Your task to perform on an android device: Search for Italian restaurants on Maps Image 0: 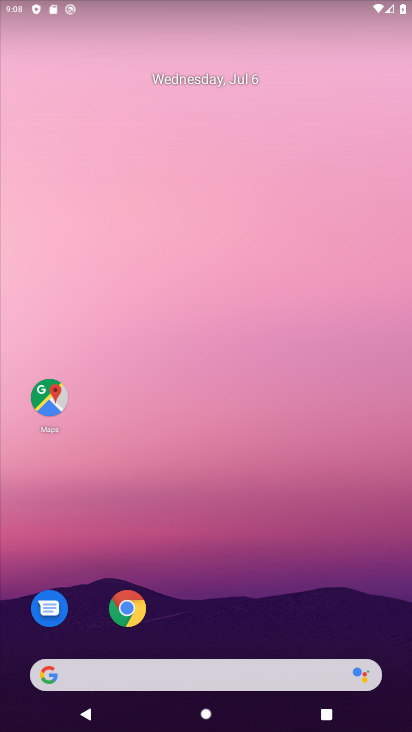
Step 0: click (43, 401)
Your task to perform on an android device: Search for Italian restaurants on Maps Image 1: 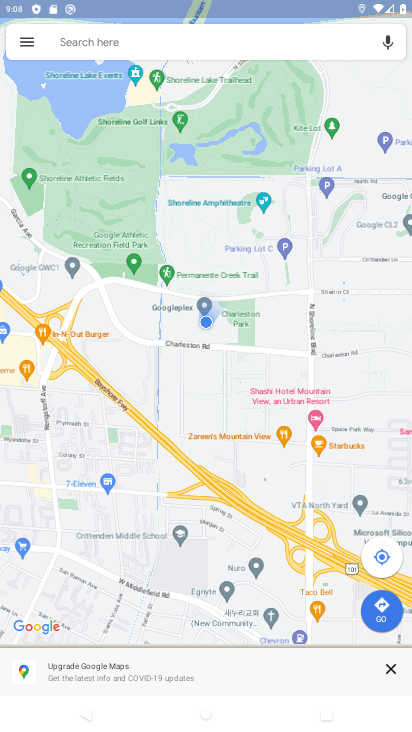
Step 1: click (144, 45)
Your task to perform on an android device: Search for Italian restaurants on Maps Image 2: 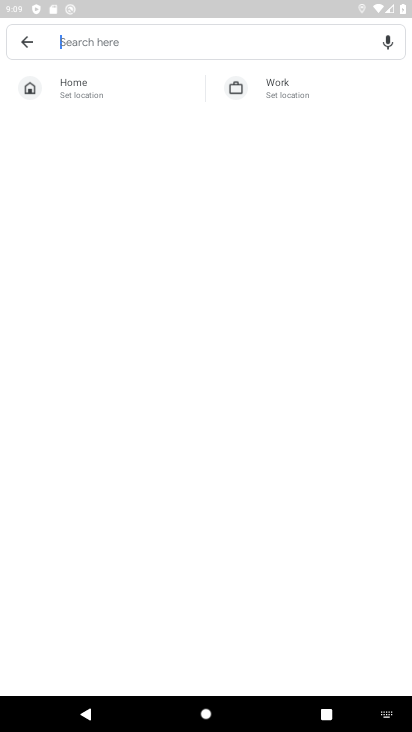
Step 2: type "italian restaurants"
Your task to perform on an android device: Search for Italian restaurants on Maps Image 3: 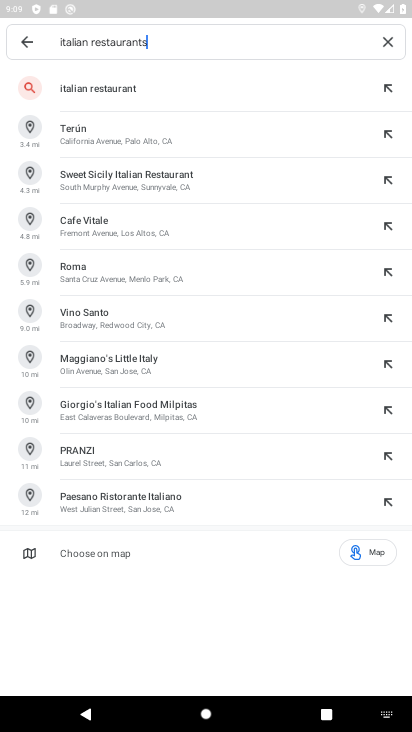
Step 3: click (107, 82)
Your task to perform on an android device: Search for Italian restaurants on Maps Image 4: 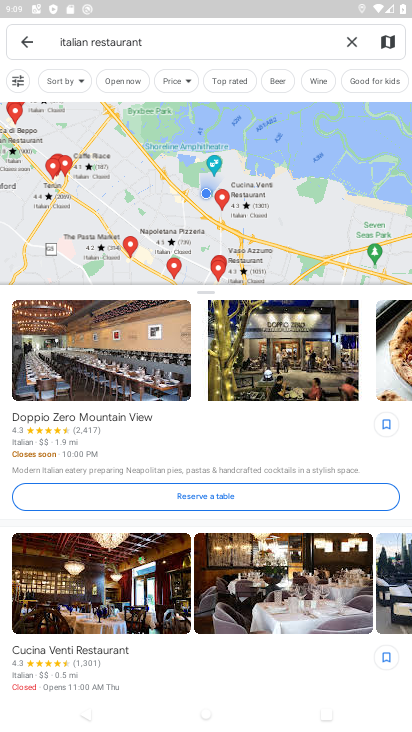
Step 4: task complete